Your task to perform on an android device: Open accessibility settings Image 0: 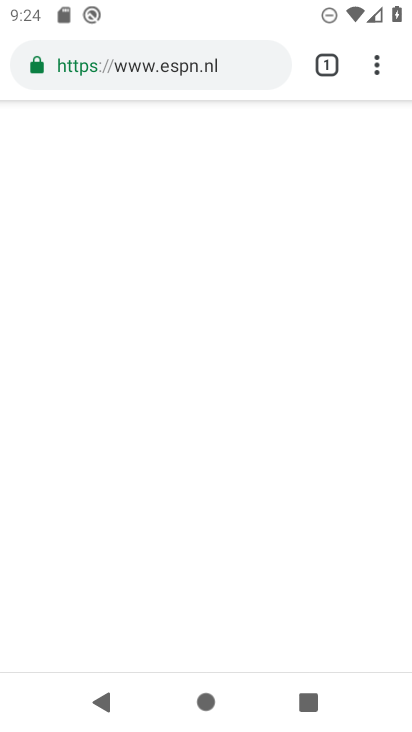
Step 0: press home button
Your task to perform on an android device: Open accessibility settings Image 1: 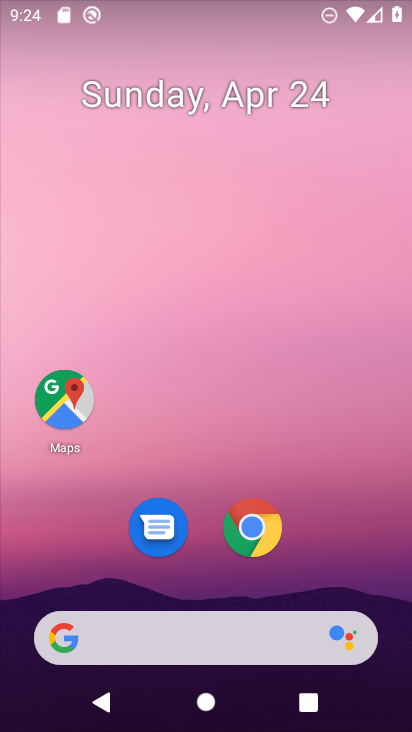
Step 1: drag from (387, 565) to (272, 12)
Your task to perform on an android device: Open accessibility settings Image 2: 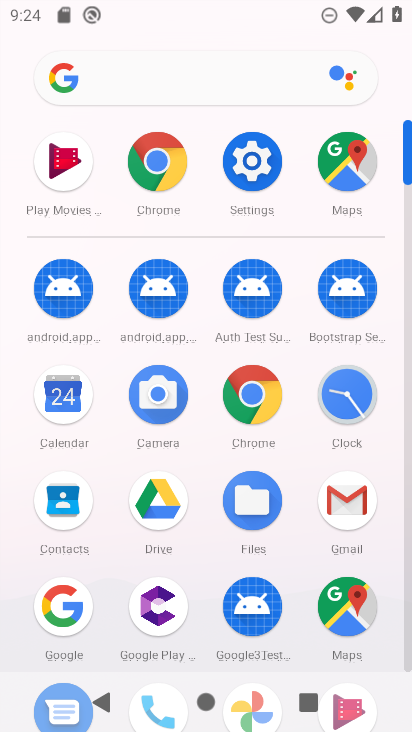
Step 2: click (252, 170)
Your task to perform on an android device: Open accessibility settings Image 3: 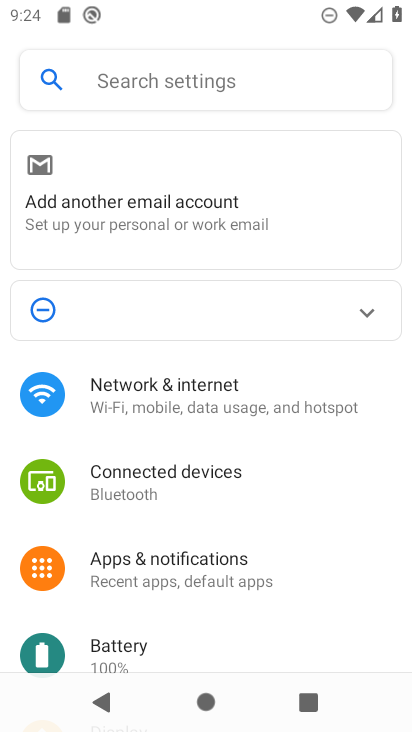
Step 3: drag from (158, 592) to (199, 114)
Your task to perform on an android device: Open accessibility settings Image 4: 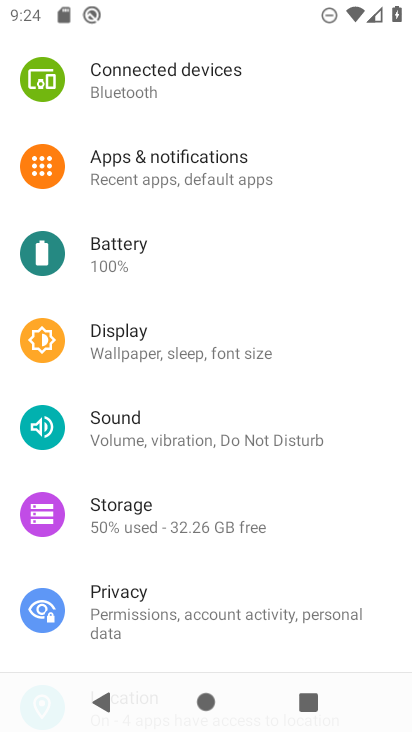
Step 4: drag from (175, 554) to (203, 103)
Your task to perform on an android device: Open accessibility settings Image 5: 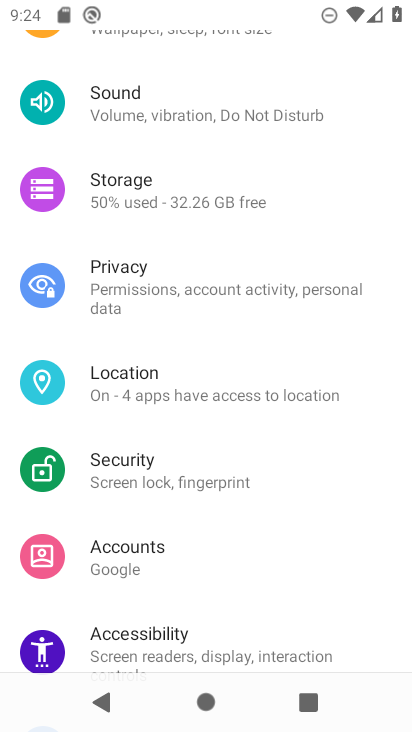
Step 5: click (179, 639)
Your task to perform on an android device: Open accessibility settings Image 6: 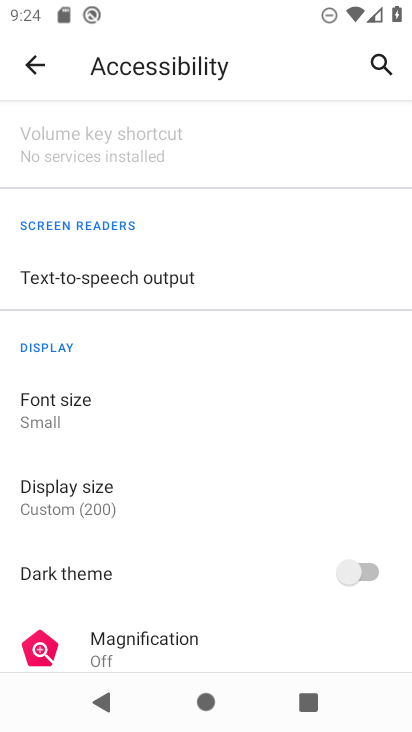
Step 6: task complete